Your task to perform on an android device: Search for pizza restaurants on Maps Image 0: 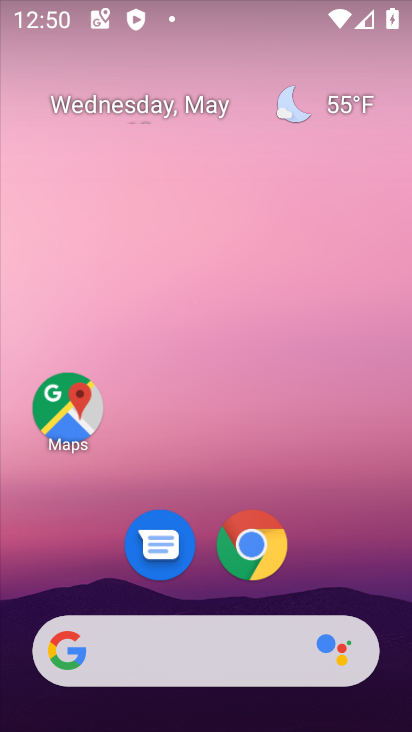
Step 0: press home button
Your task to perform on an android device: Search for pizza restaurants on Maps Image 1: 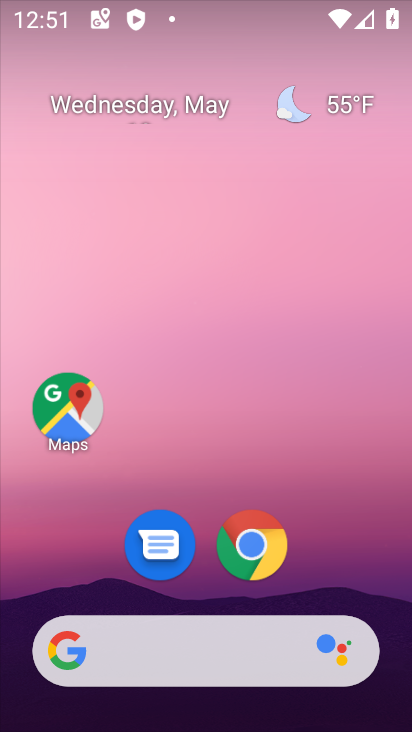
Step 1: click (70, 419)
Your task to perform on an android device: Search for pizza restaurants on Maps Image 2: 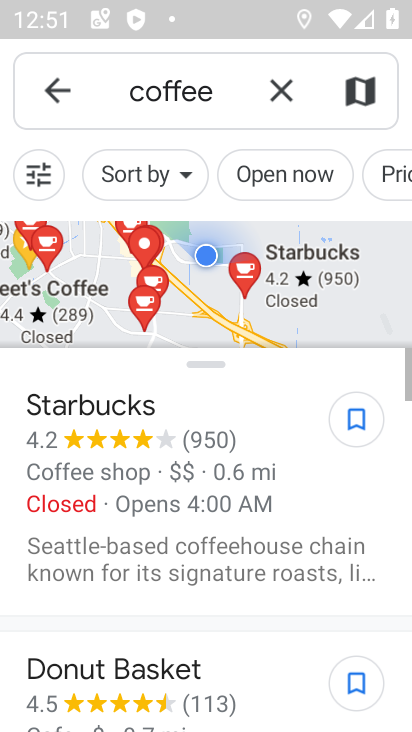
Step 2: click (284, 87)
Your task to perform on an android device: Search for pizza restaurants on Maps Image 3: 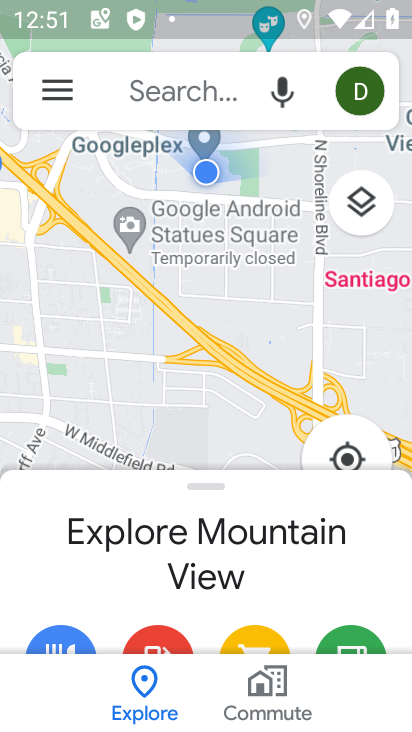
Step 3: click (203, 95)
Your task to perform on an android device: Search for pizza restaurants on Maps Image 4: 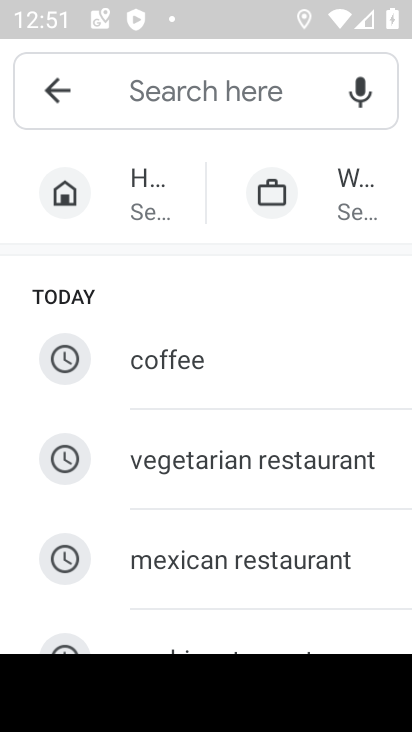
Step 4: drag from (251, 547) to (234, 281)
Your task to perform on an android device: Search for pizza restaurants on Maps Image 5: 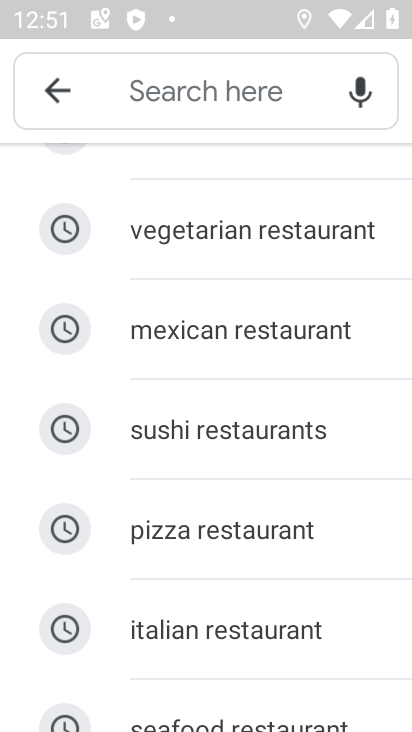
Step 5: click (224, 526)
Your task to perform on an android device: Search for pizza restaurants on Maps Image 6: 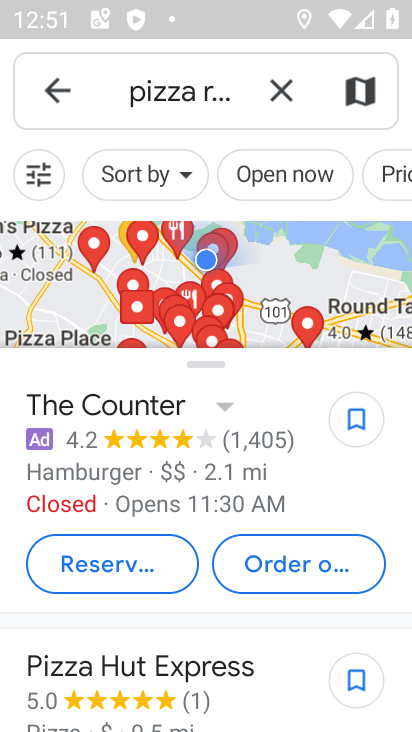
Step 6: task complete